Your task to perform on an android device: delete a single message in the gmail app Image 0: 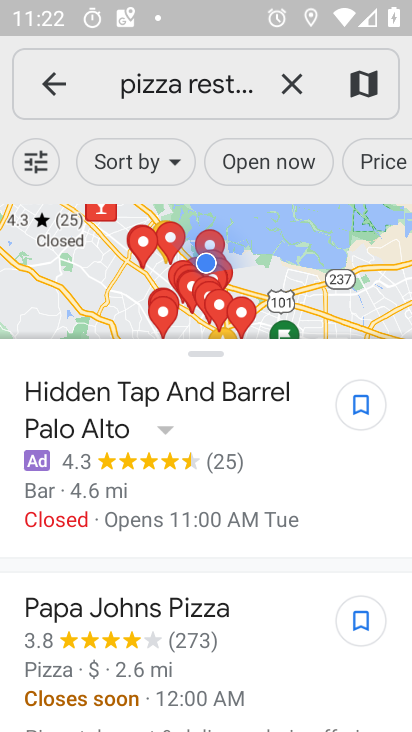
Step 0: press home button
Your task to perform on an android device: delete a single message in the gmail app Image 1: 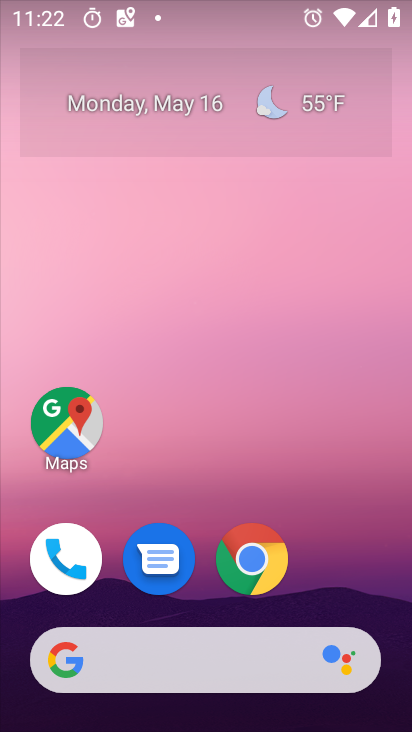
Step 1: drag from (308, 581) to (385, 104)
Your task to perform on an android device: delete a single message in the gmail app Image 2: 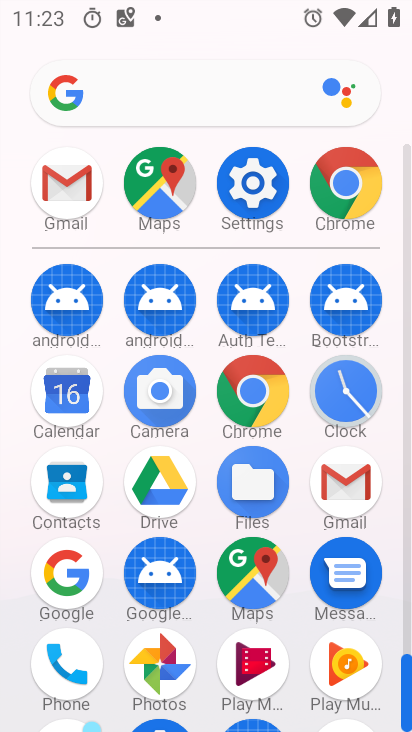
Step 2: click (57, 189)
Your task to perform on an android device: delete a single message in the gmail app Image 3: 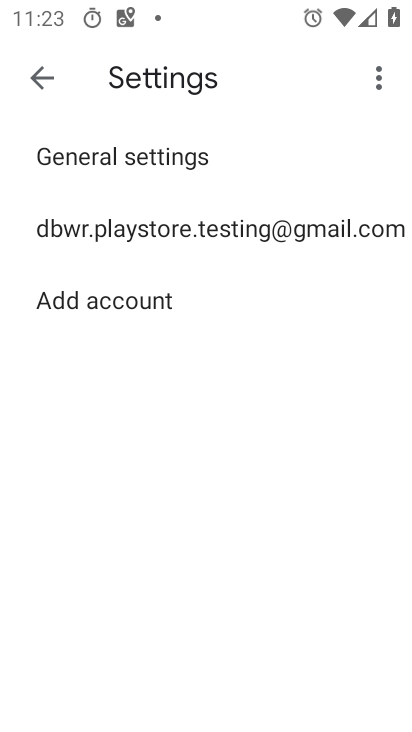
Step 3: click (45, 78)
Your task to perform on an android device: delete a single message in the gmail app Image 4: 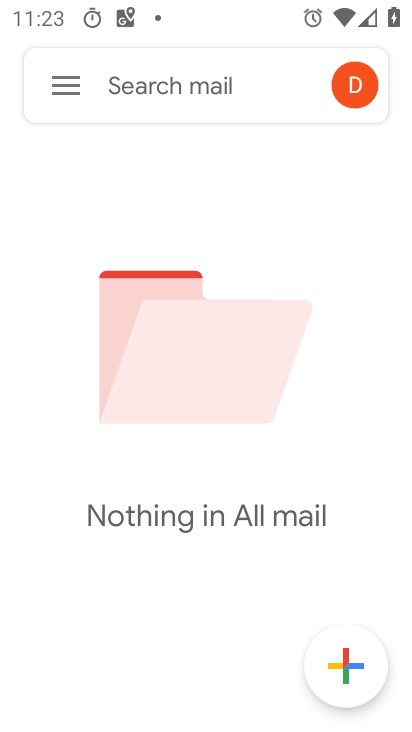
Step 4: task complete